Your task to perform on an android device: Turn on the flashlight Image 0: 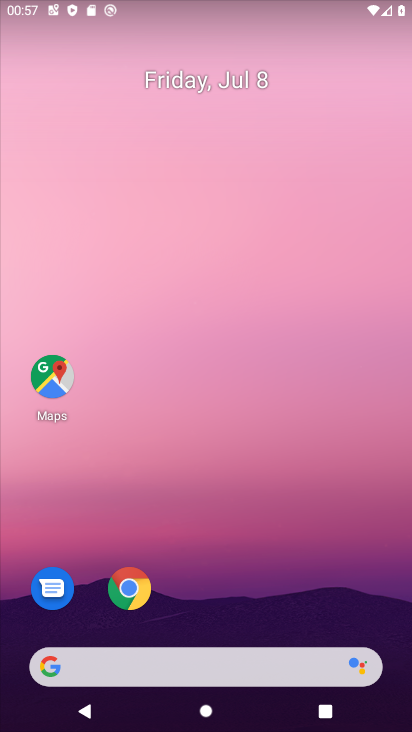
Step 0: click (173, 62)
Your task to perform on an android device: Turn on the flashlight Image 1: 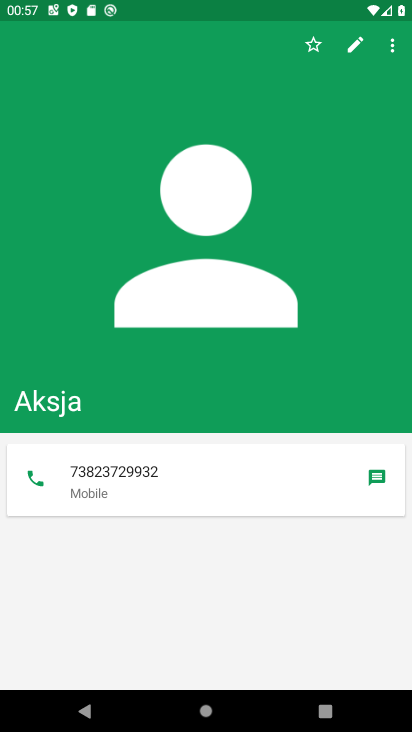
Step 1: drag from (166, 612) to (174, 211)
Your task to perform on an android device: Turn on the flashlight Image 2: 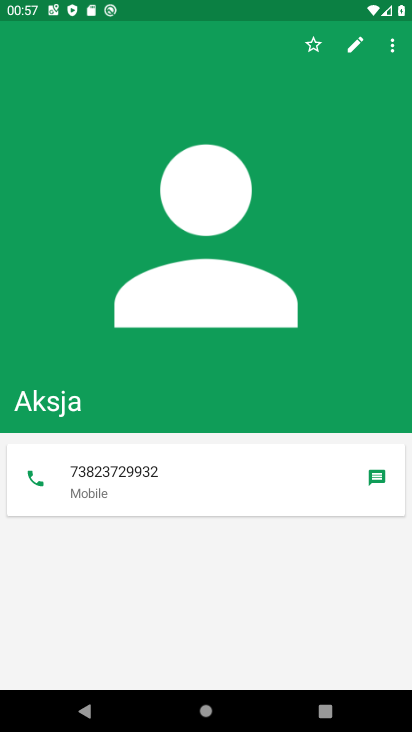
Step 2: press home button
Your task to perform on an android device: Turn on the flashlight Image 3: 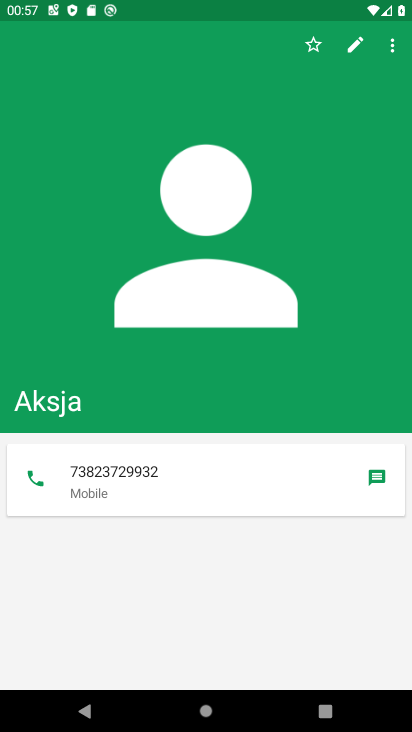
Step 3: press home button
Your task to perform on an android device: Turn on the flashlight Image 4: 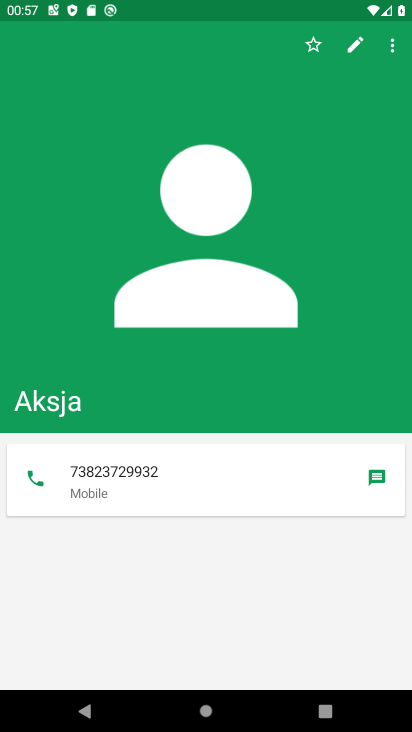
Step 4: click (252, 32)
Your task to perform on an android device: Turn on the flashlight Image 5: 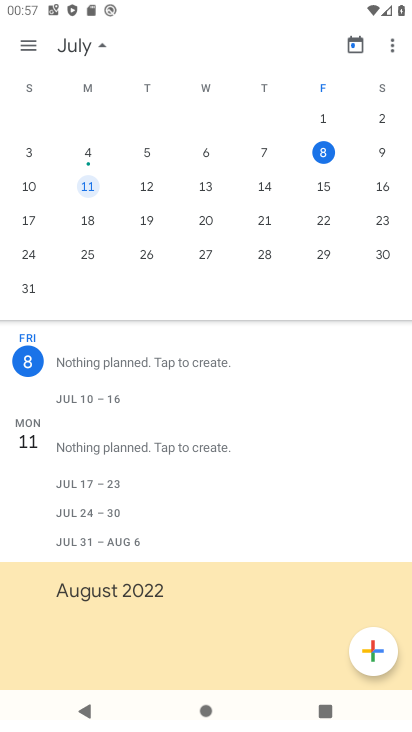
Step 5: drag from (173, 582) to (226, 216)
Your task to perform on an android device: Turn on the flashlight Image 6: 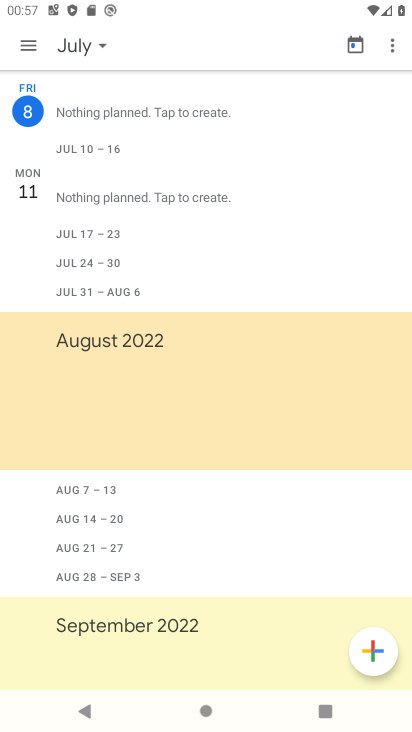
Step 6: press home button
Your task to perform on an android device: Turn on the flashlight Image 7: 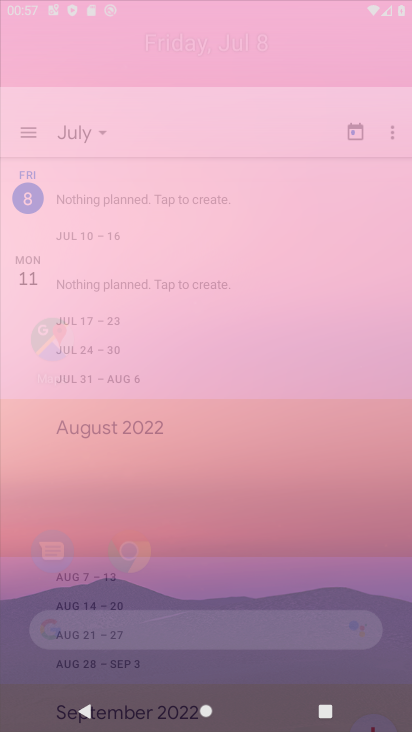
Step 7: drag from (239, 542) to (263, 50)
Your task to perform on an android device: Turn on the flashlight Image 8: 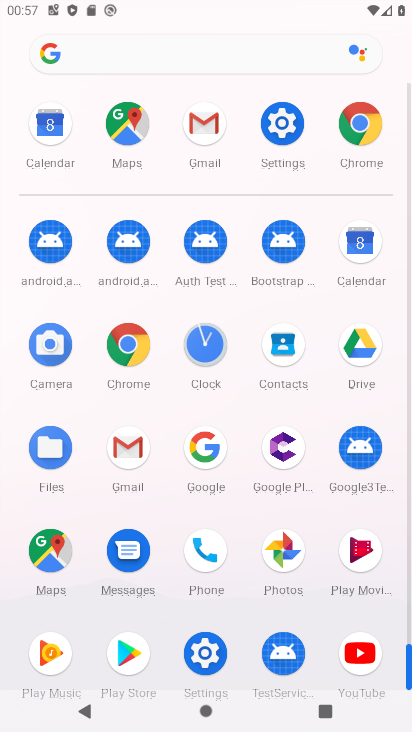
Step 8: click (285, 109)
Your task to perform on an android device: Turn on the flashlight Image 9: 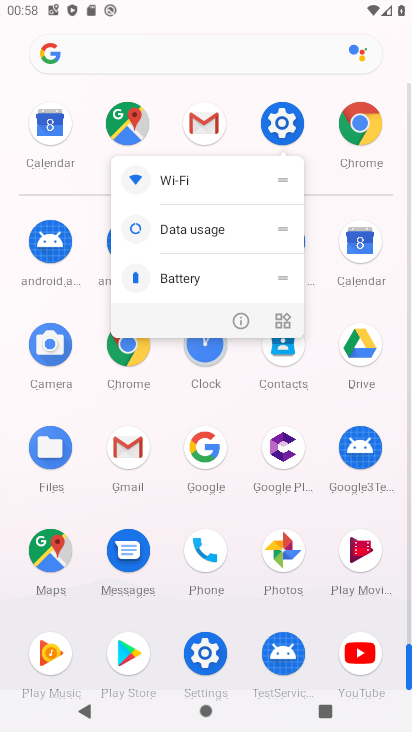
Step 9: click (250, 322)
Your task to perform on an android device: Turn on the flashlight Image 10: 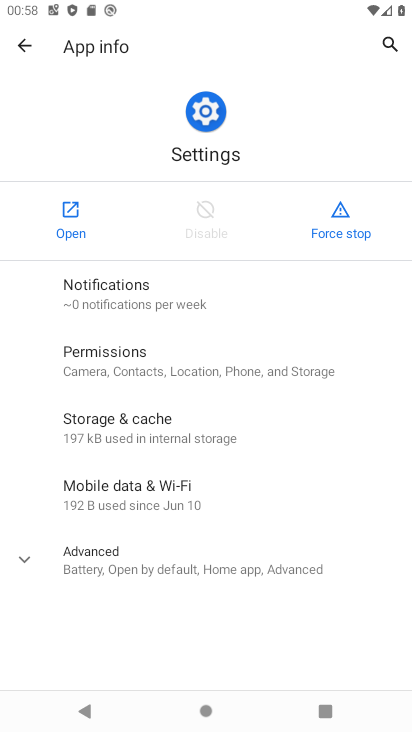
Step 10: click (75, 202)
Your task to perform on an android device: Turn on the flashlight Image 11: 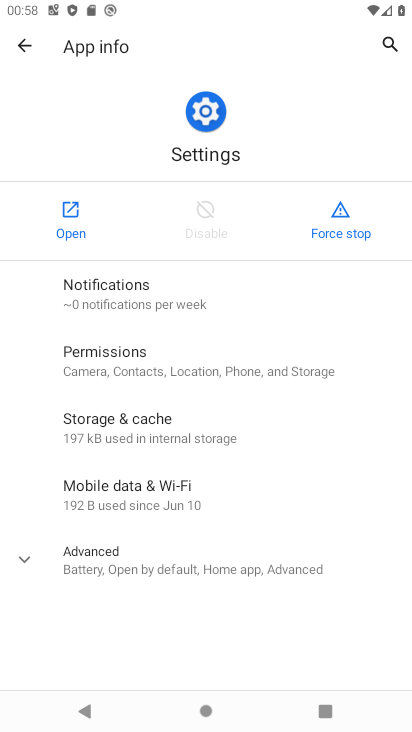
Step 11: click (75, 202)
Your task to perform on an android device: Turn on the flashlight Image 12: 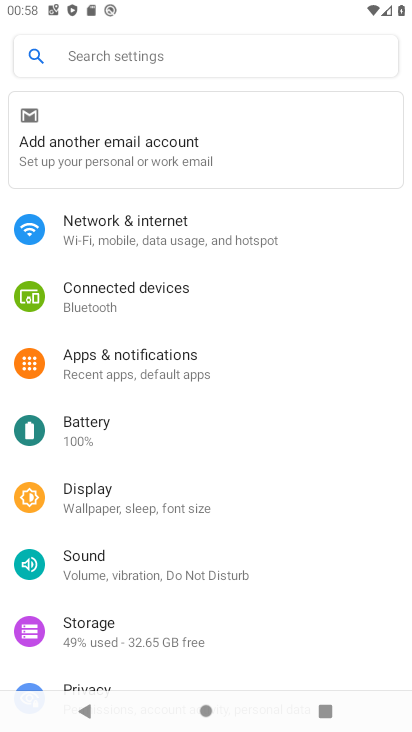
Step 12: click (100, 58)
Your task to perform on an android device: Turn on the flashlight Image 13: 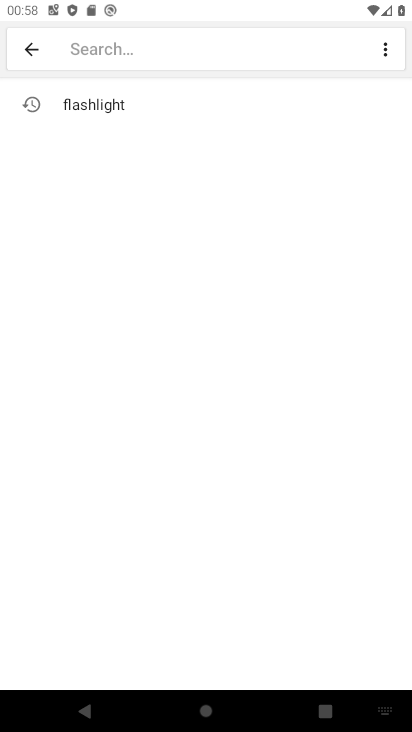
Step 13: click (98, 126)
Your task to perform on an android device: Turn on the flashlight Image 14: 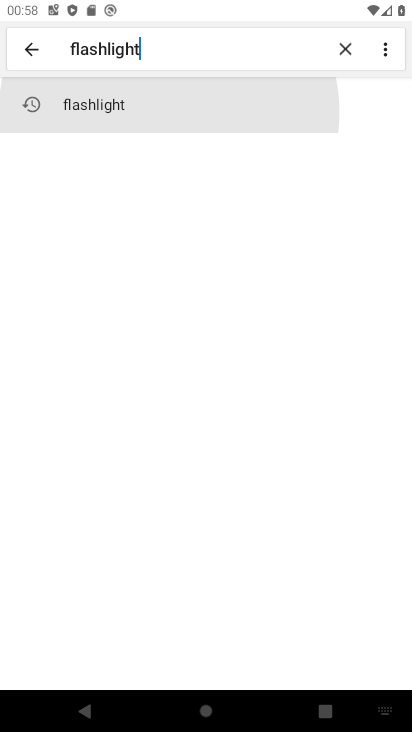
Step 14: click (83, 101)
Your task to perform on an android device: Turn on the flashlight Image 15: 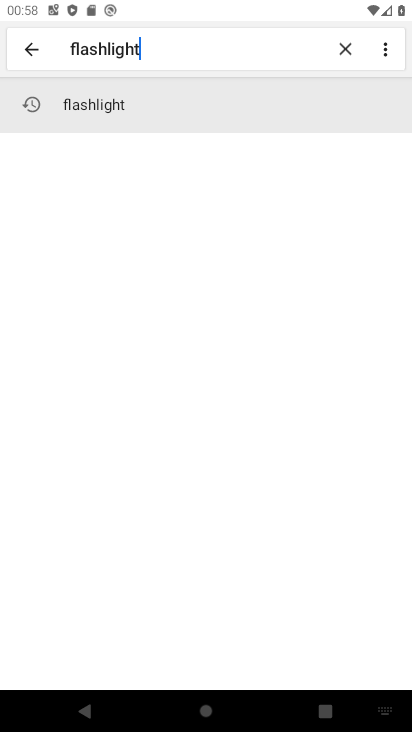
Step 15: click (83, 101)
Your task to perform on an android device: Turn on the flashlight Image 16: 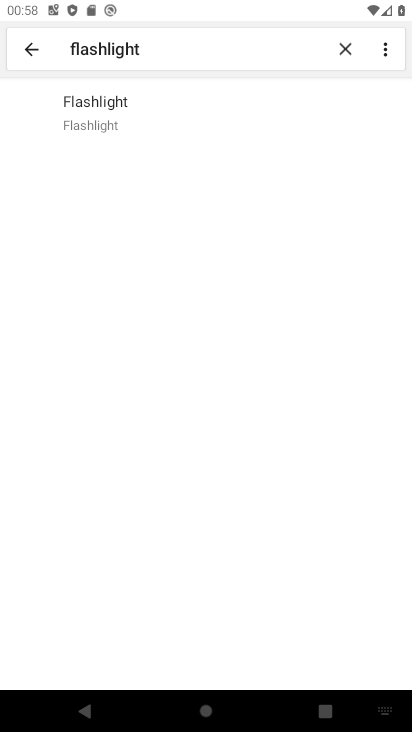
Step 16: task complete